Your task to perform on an android device: change your default location settings in chrome Image 0: 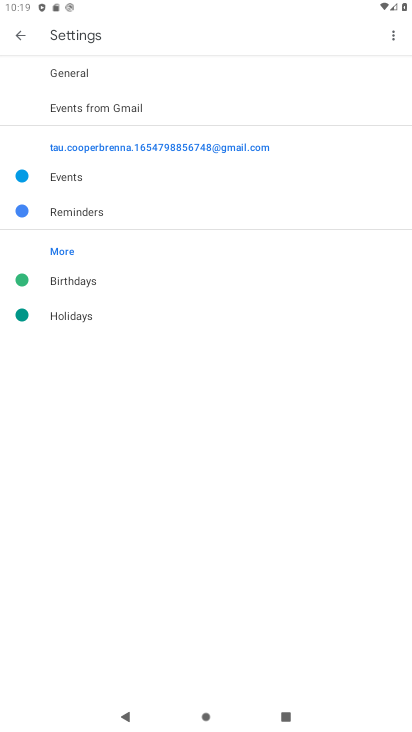
Step 0: press home button
Your task to perform on an android device: change your default location settings in chrome Image 1: 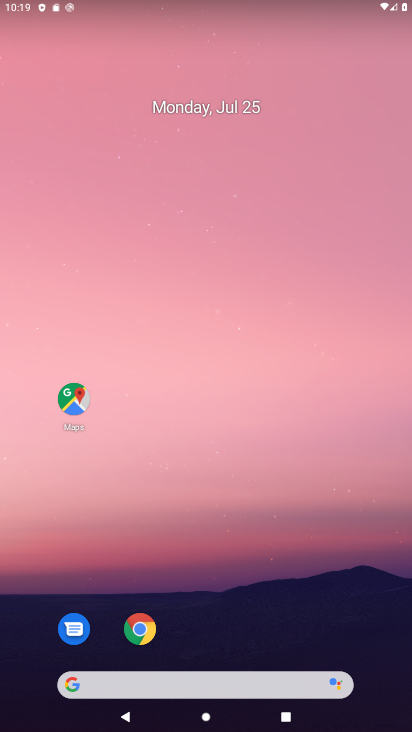
Step 1: click (144, 631)
Your task to perform on an android device: change your default location settings in chrome Image 2: 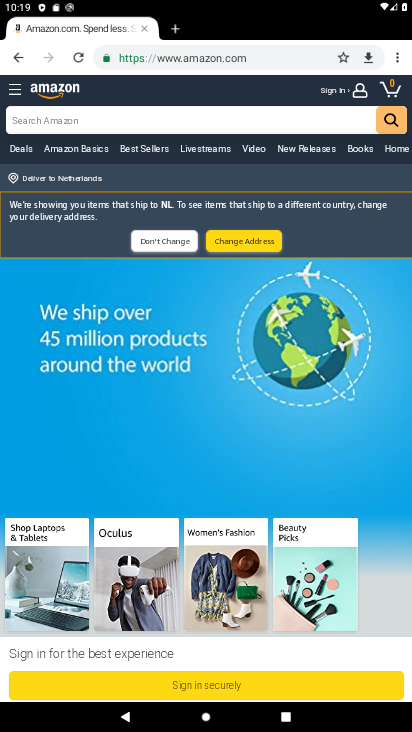
Step 2: drag from (400, 63) to (307, 381)
Your task to perform on an android device: change your default location settings in chrome Image 3: 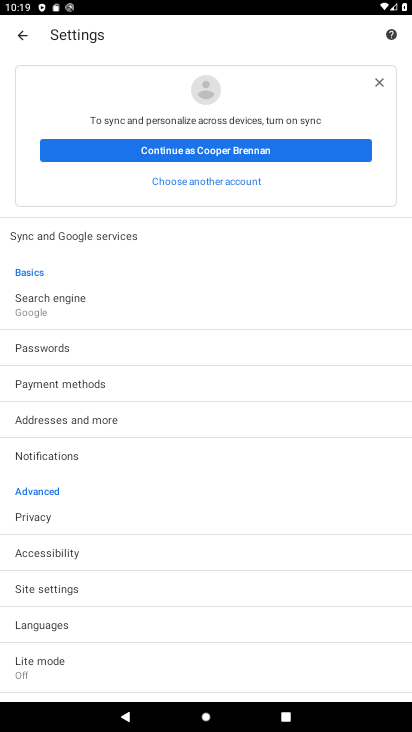
Step 3: click (58, 587)
Your task to perform on an android device: change your default location settings in chrome Image 4: 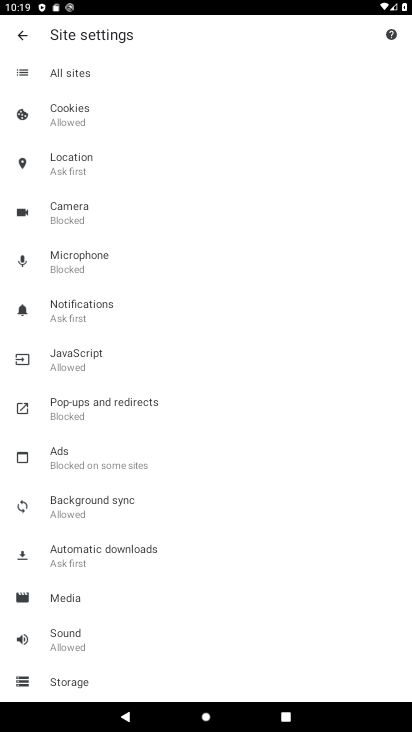
Step 4: click (72, 174)
Your task to perform on an android device: change your default location settings in chrome Image 5: 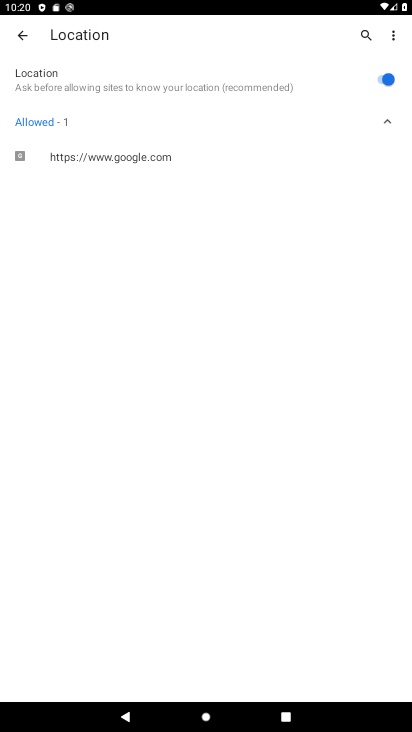
Step 5: click (388, 65)
Your task to perform on an android device: change your default location settings in chrome Image 6: 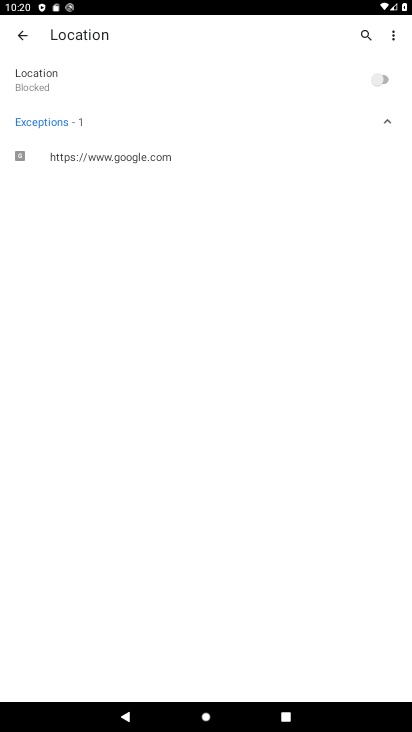
Step 6: task complete